Your task to perform on an android device: Check the news Image 0: 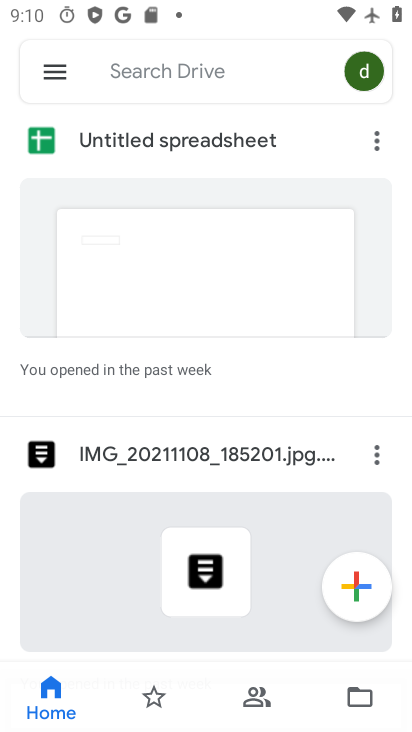
Step 0: press home button
Your task to perform on an android device: Check the news Image 1: 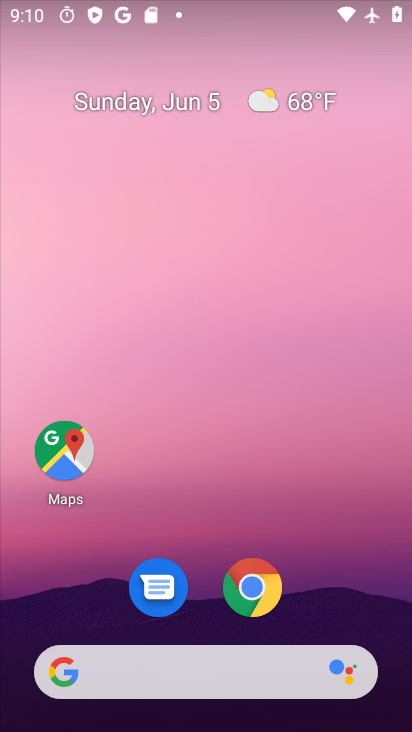
Step 1: click (197, 666)
Your task to perform on an android device: Check the news Image 2: 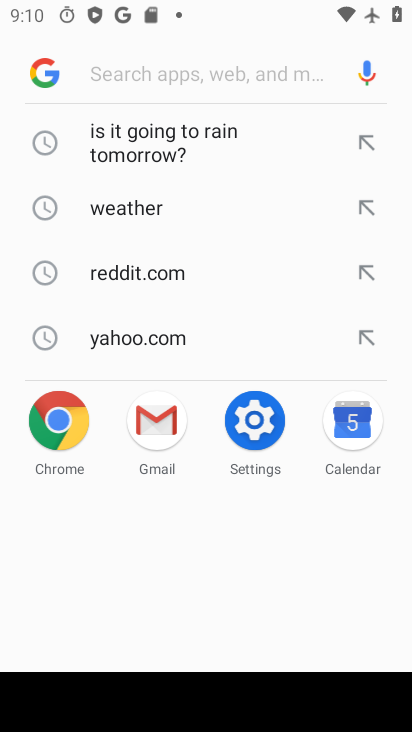
Step 2: type "news"
Your task to perform on an android device: Check the news Image 3: 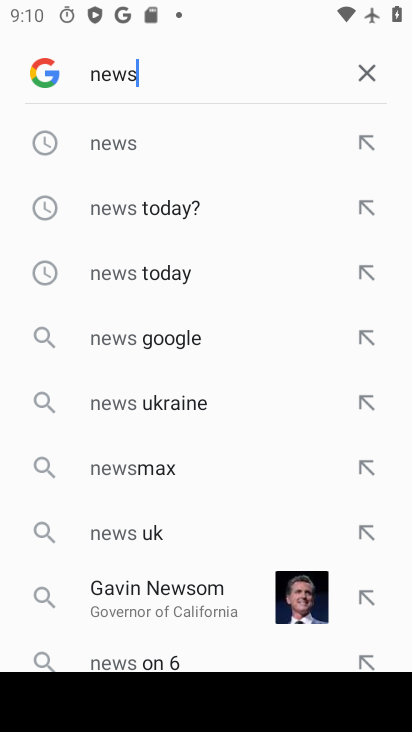
Step 3: click (146, 144)
Your task to perform on an android device: Check the news Image 4: 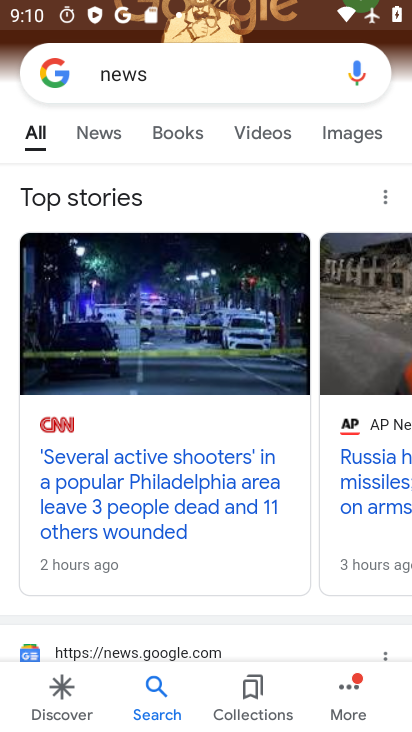
Step 4: task complete